Your task to perform on an android device: set default search engine in the chrome app Image 0: 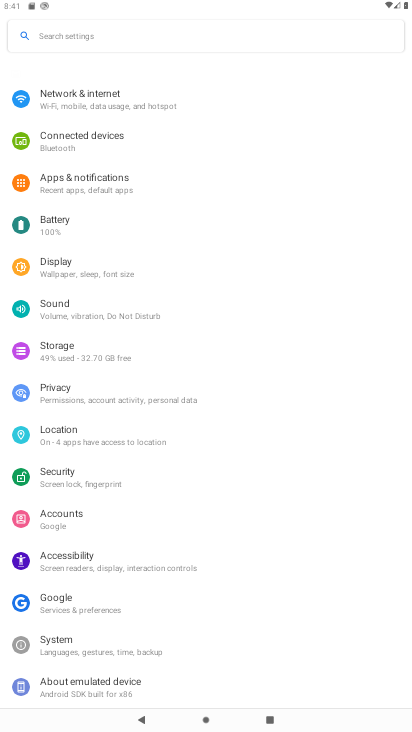
Step 0: drag from (208, 655) to (381, 441)
Your task to perform on an android device: set default search engine in the chrome app Image 1: 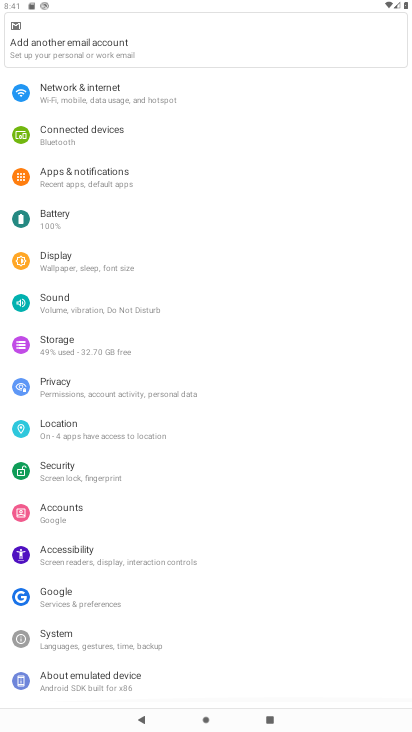
Step 1: press home button
Your task to perform on an android device: set default search engine in the chrome app Image 2: 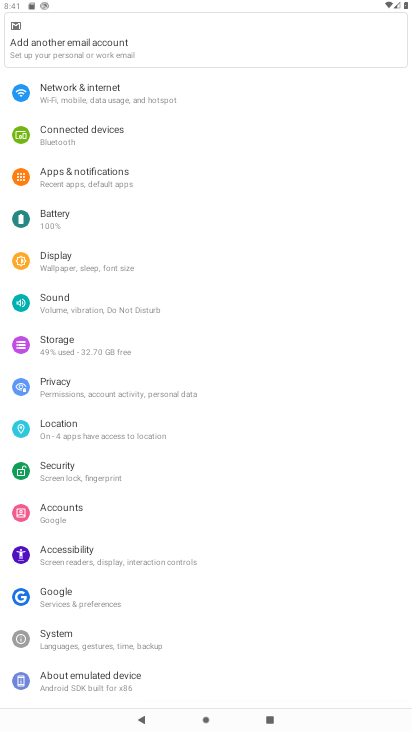
Step 2: click (364, 246)
Your task to perform on an android device: set default search engine in the chrome app Image 3: 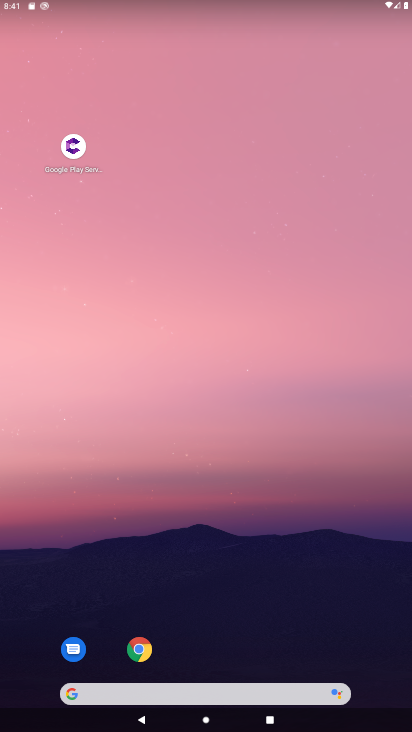
Step 3: click (138, 650)
Your task to perform on an android device: set default search engine in the chrome app Image 4: 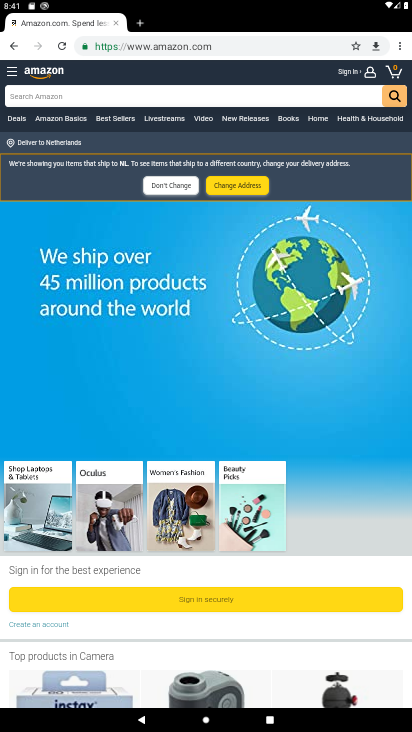
Step 4: click (397, 49)
Your task to perform on an android device: set default search engine in the chrome app Image 5: 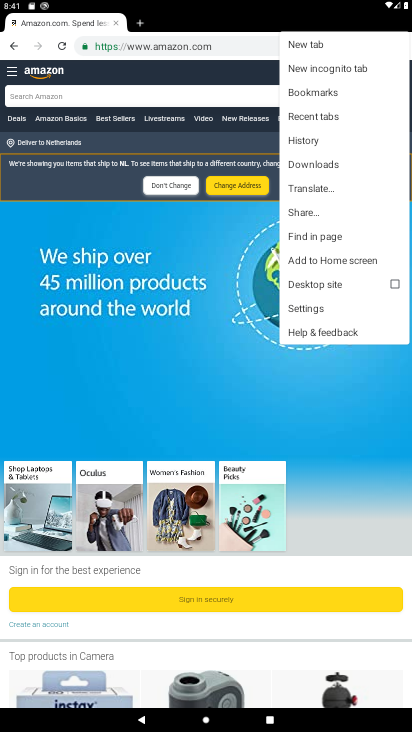
Step 5: click (300, 304)
Your task to perform on an android device: set default search engine in the chrome app Image 6: 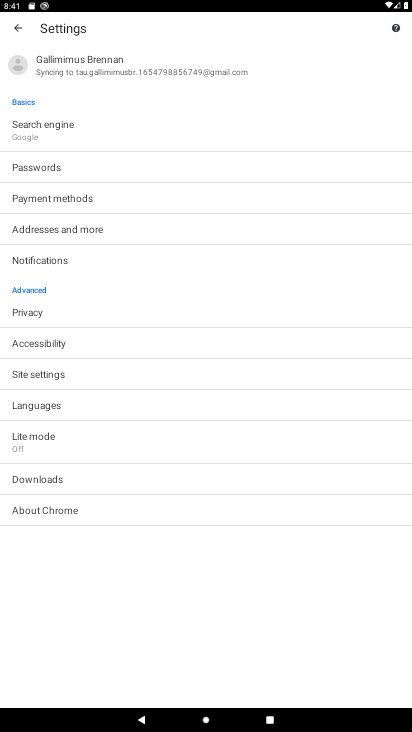
Step 6: click (50, 136)
Your task to perform on an android device: set default search engine in the chrome app Image 7: 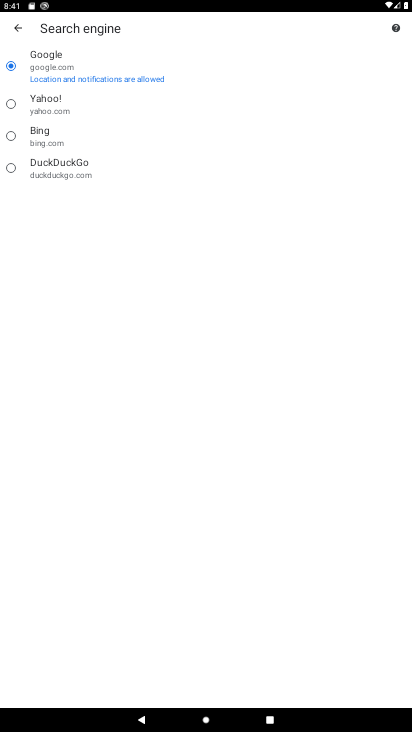
Step 7: click (8, 105)
Your task to perform on an android device: set default search engine in the chrome app Image 8: 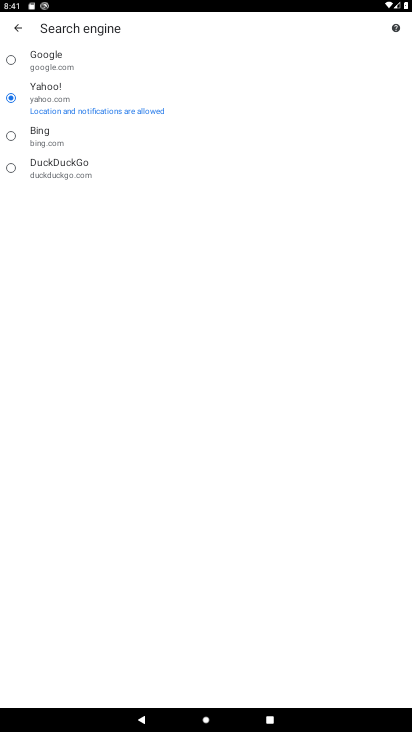
Step 8: task complete